Your task to perform on an android device: Open network settings Image 0: 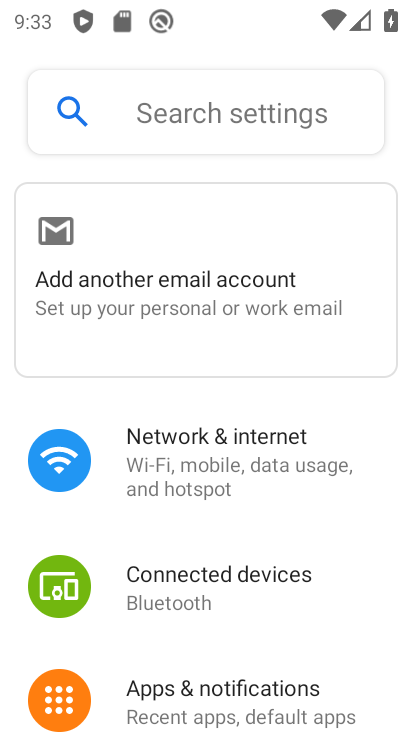
Step 0: press home button
Your task to perform on an android device: Open network settings Image 1: 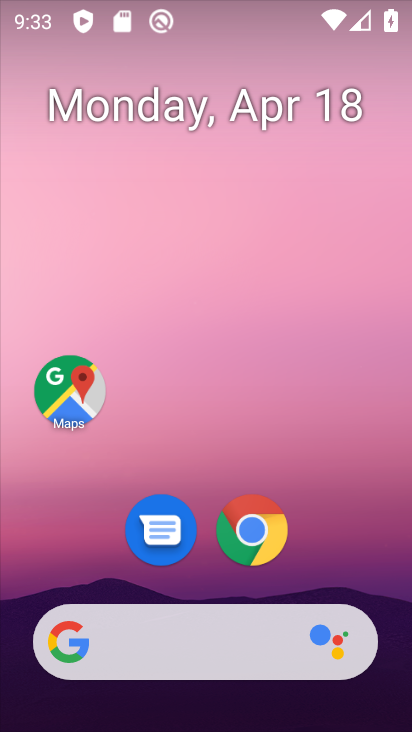
Step 1: drag from (352, 585) to (349, 0)
Your task to perform on an android device: Open network settings Image 2: 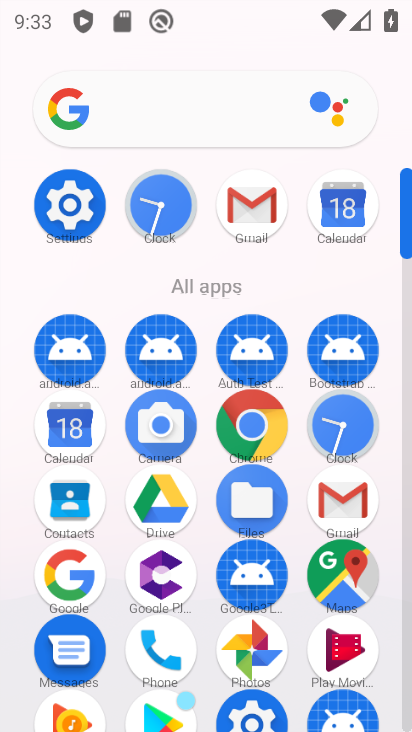
Step 2: click (54, 208)
Your task to perform on an android device: Open network settings Image 3: 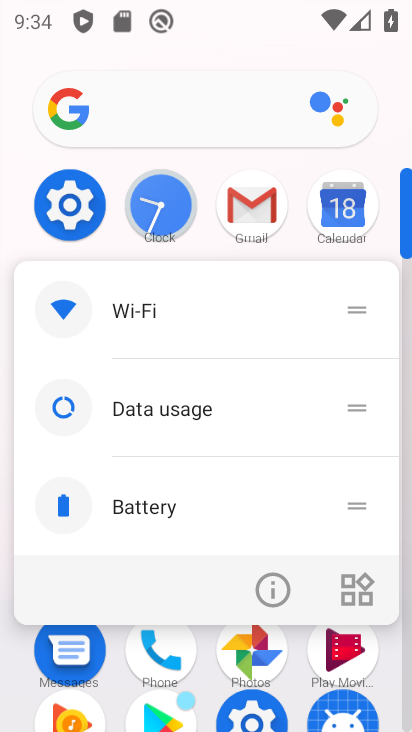
Step 3: click (73, 206)
Your task to perform on an android device: Open network settings Image 4: 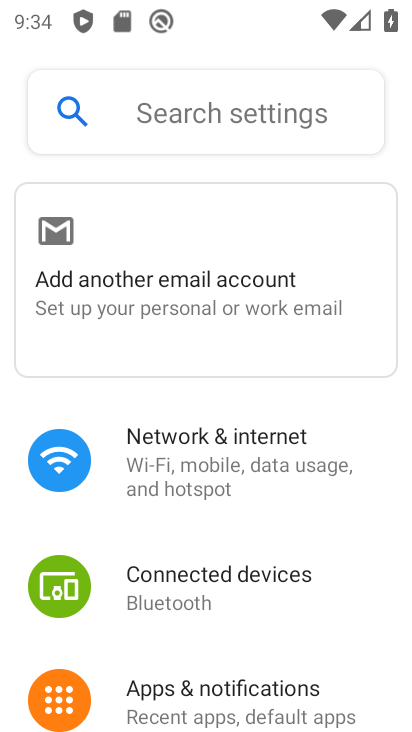
Step 4: click (227, 467)
Your task to perform on an android device: Open network settings Image 5: 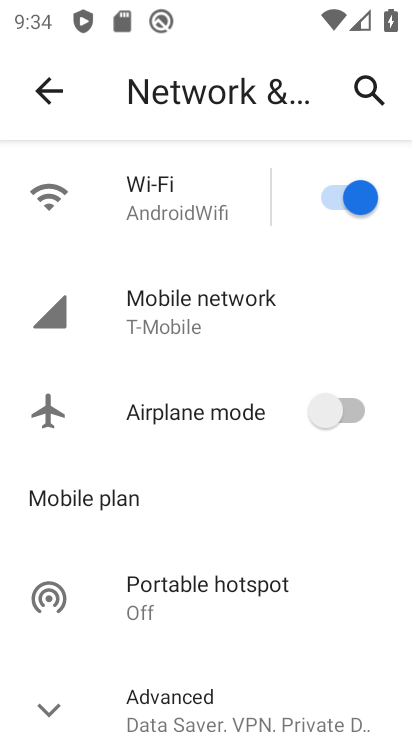
Step 5: task complete